Your task to perform on an android device: Search for pizza restaurants on Maps Image 0: 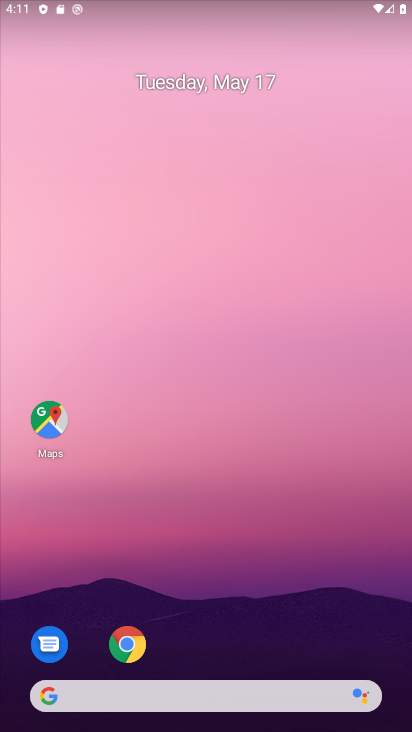
Step 0: click (56, 417)
Your task to perform on an android device: Search for pizza restaurants on Maps Image 1: 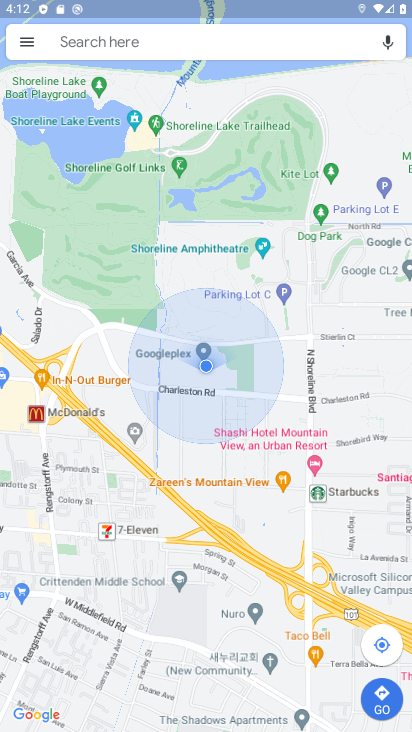
Step 1: click (176, 42)
Your task to perform on an android device: Search for pizza restaurants on Maps Image 2: 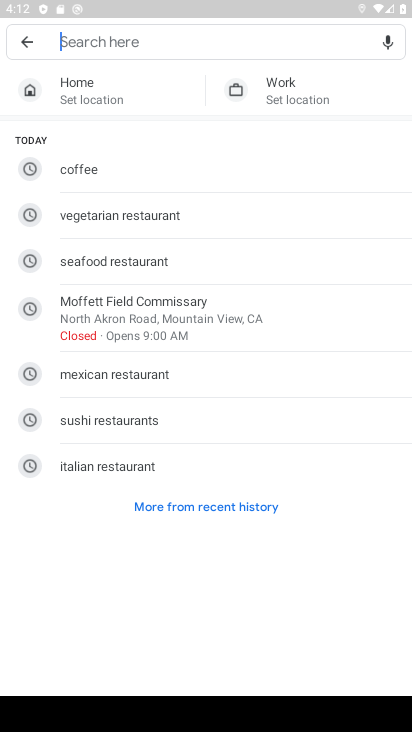
Step 2: type "pizza restaurants"
Your task to perform on an android device: Search for pizza restaurants on Maps Image 3: 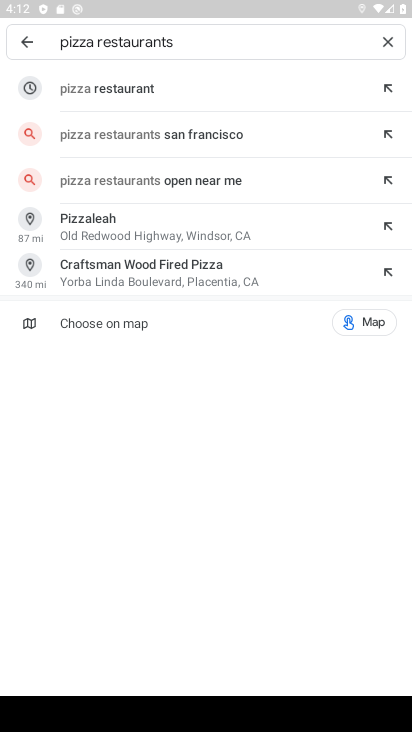
Step 3: click (262, 89)
Your task to perform on an android device: Search for pizza restaurants on Maps Image 4: 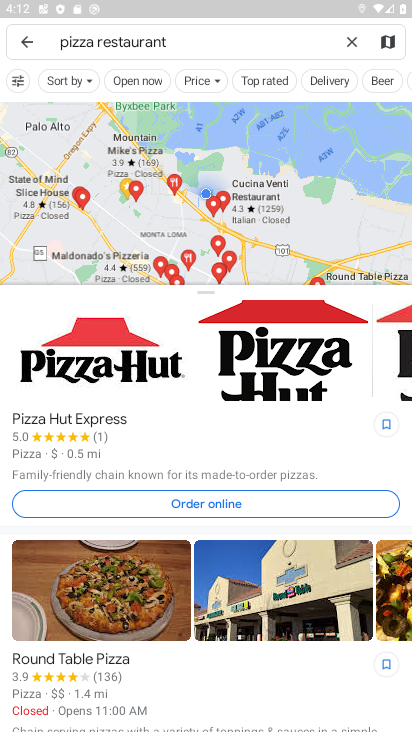
Step 4: task complete